Your task to perform on an android device: Search for sushi restaurants on Maps Image 0: 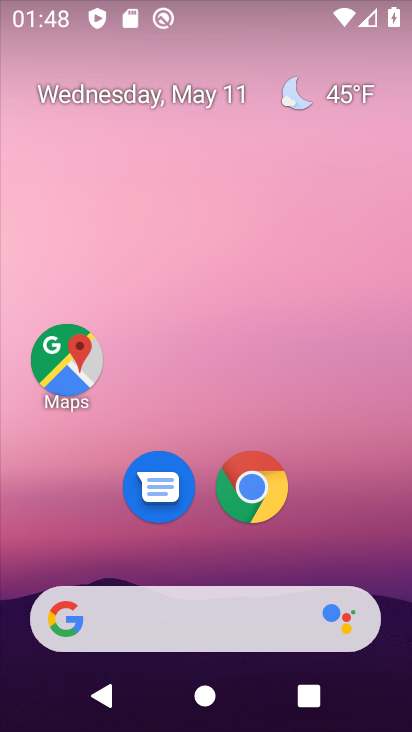
Step 0: click (76, 380)
Your task to perform on an android device: Search for sushi restaurants on Maps Image 1: 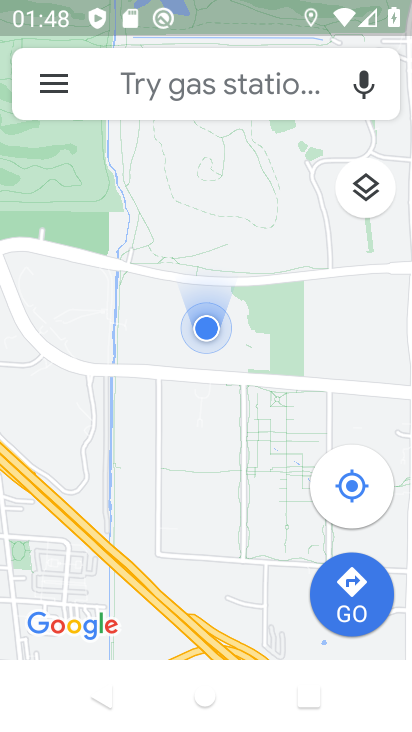
Step 1: click (219, 95)
Your task to perform on an android device: Search for sushi restaurants on Maps Image 2: 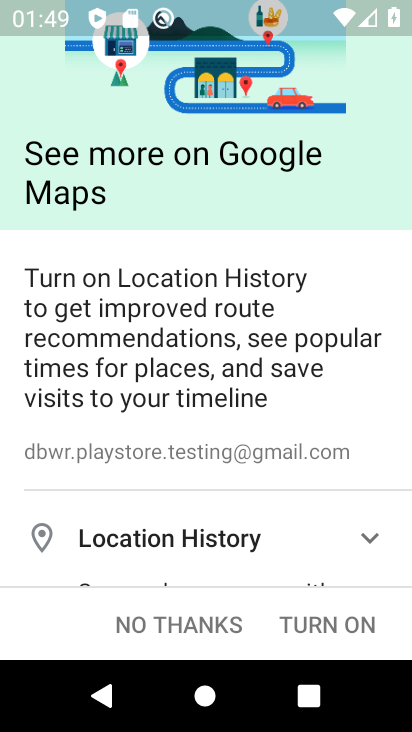
Step 2: click (230, 629)
Your task to perform on an android device: Search for sushi restaurants on Maps Image 3: 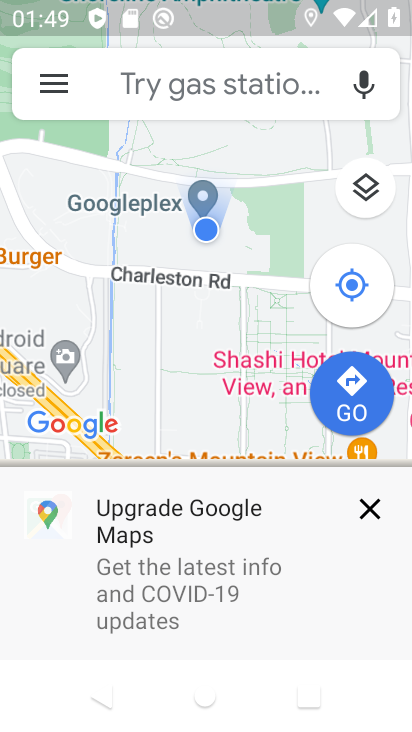
Step 3: click (196, 97)
Your task to perform on an android device: Search for sushi restaurants on Maps Image 4: 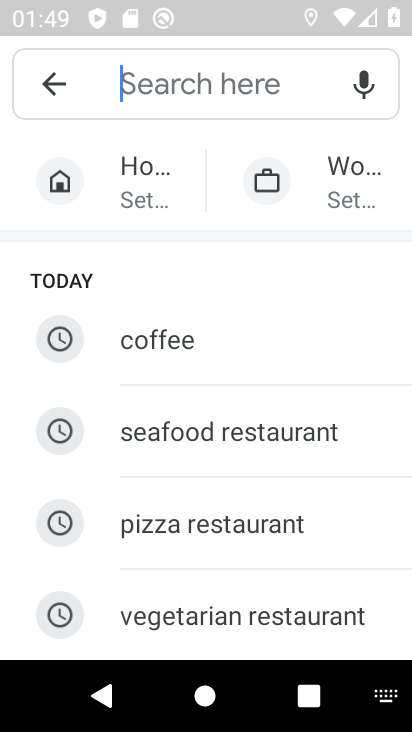
Step 4: type "sushi restaurants "
Your task to perform on an android device: Search for sushi restaurants on Maps Image 5: 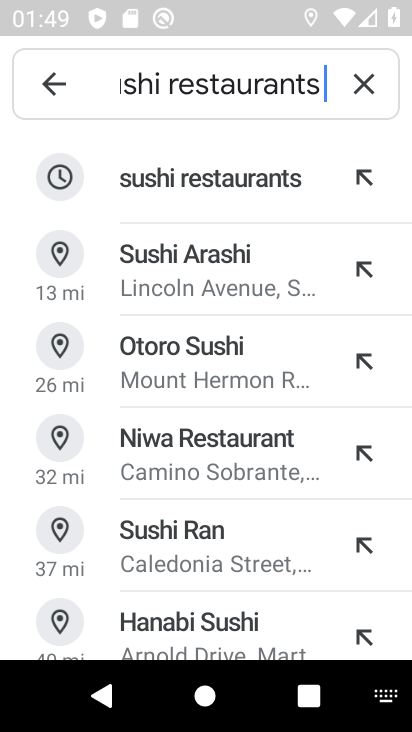
Step 5: click (197, 184)
Your task to perform on an android device: Search for sushi restaurants on Maps Image 6: 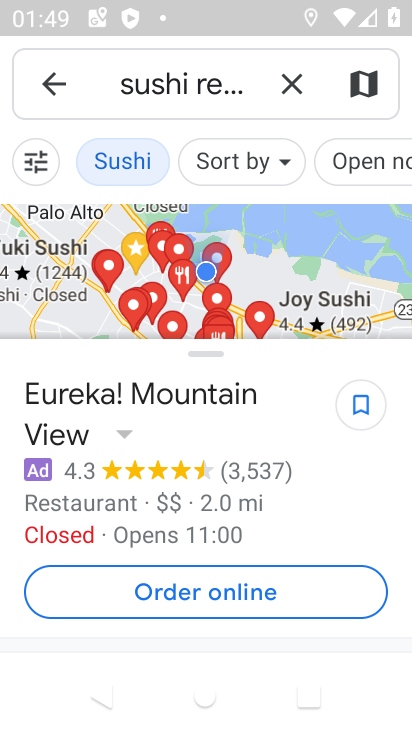
Step 6: task complete